Your task to perform on an android device: Go to display settings Image 0: 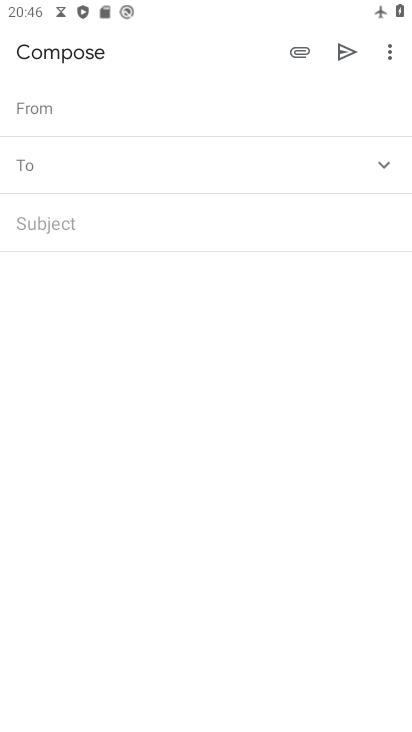
Step 0: drag from (391, 630) to (372, 500)
Your task to perform on an android device: Go to display settings Image 1: 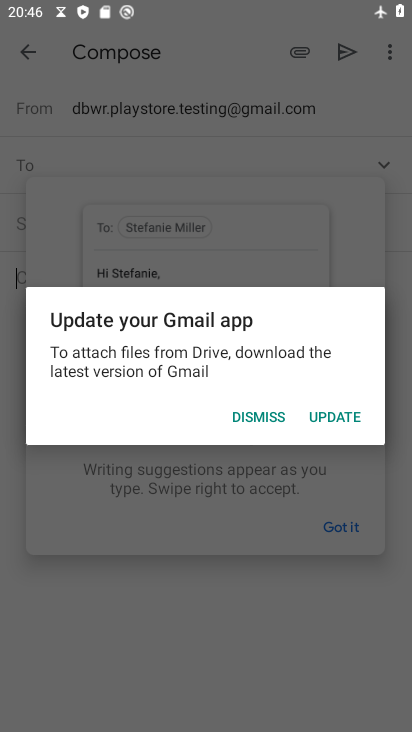
Step 1: press home button
Your task to perform on an android device: Go to display settings Image 2: 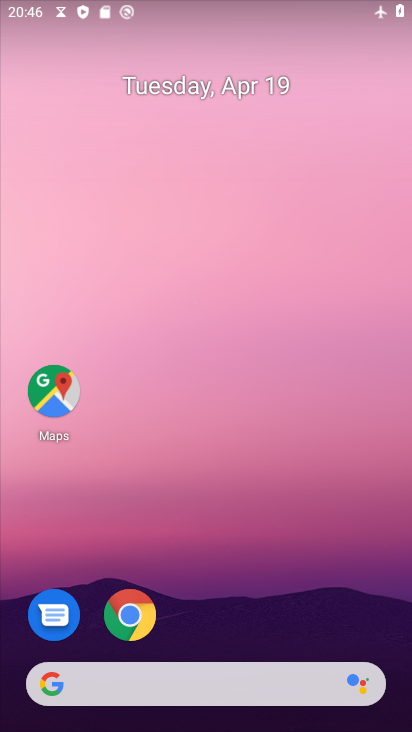
Step 2: drag from (352, 555) to (247, 0)
Your task to perform on an android device: Go to display settings Image 3: 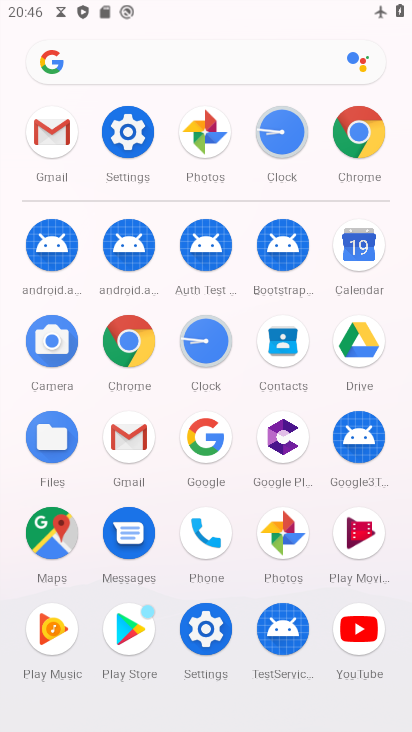
Step 3: click (206, 628)
Your task to perform on an android device: Go to display settings Image 4: 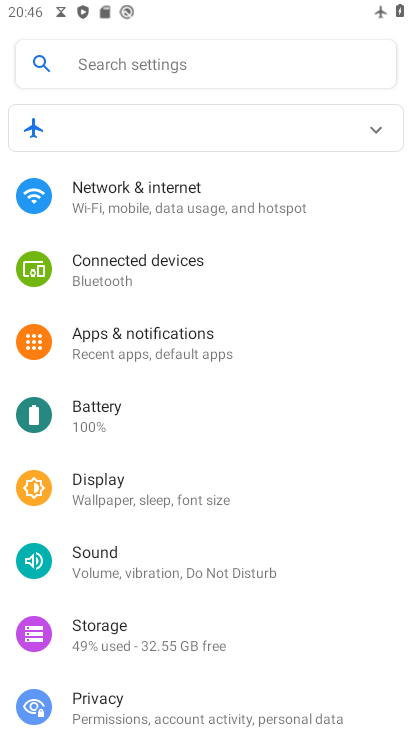
Step 4: click (166, 494)
Your task to perform on an android device: Go to display settings Image 5: 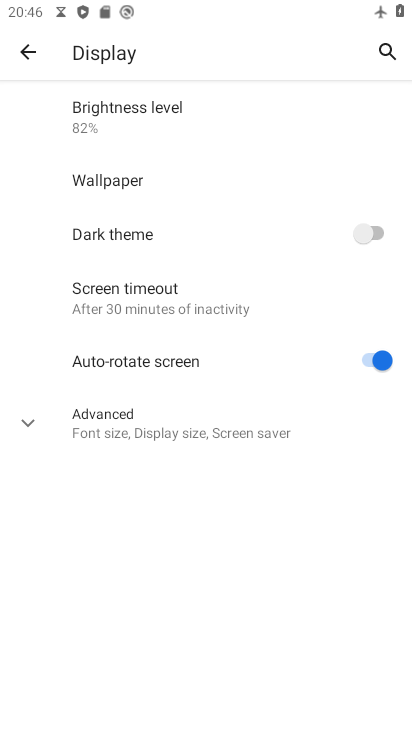
Step 5: click (47, 429)
Your task to perform on an android device: Go to display settings Image 6: 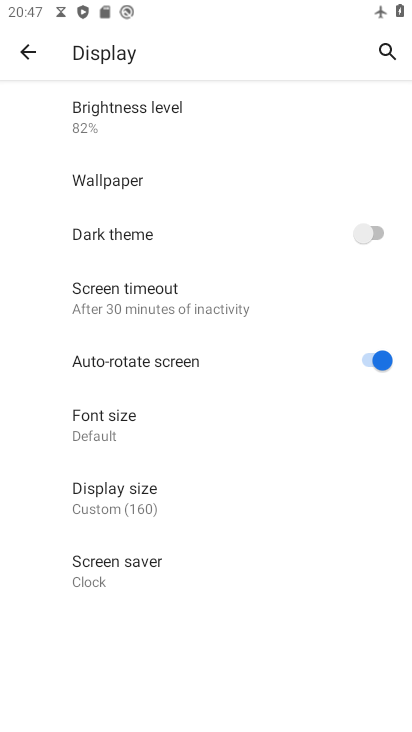
Step 6: task complete